Your task to perform on an android device: Open Yahoo.com Image 0: 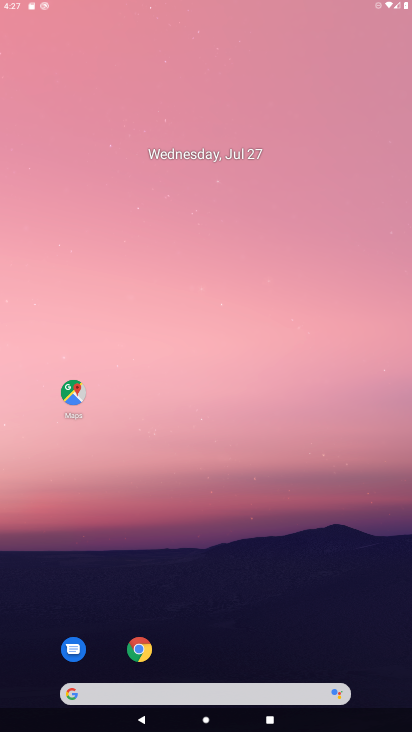
Step 0: click (133, 658)
Your task to perform on an android device: Open Yahoo.com Image 1: 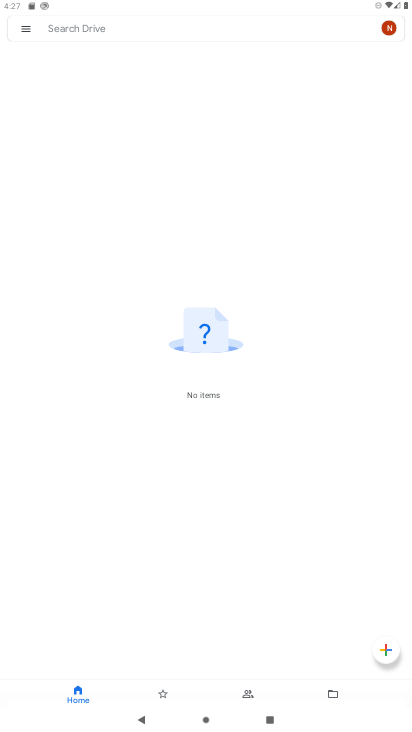
Step 1: press home button
Your task to perform on an android device: Open Yahoo.com Image 2: 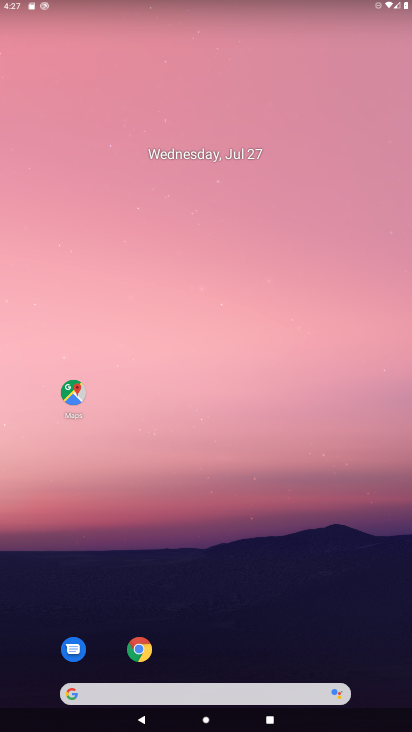
Step 2: click (140, 665)
Your task to perform on an android device: Open Yahoo.com Image 3: 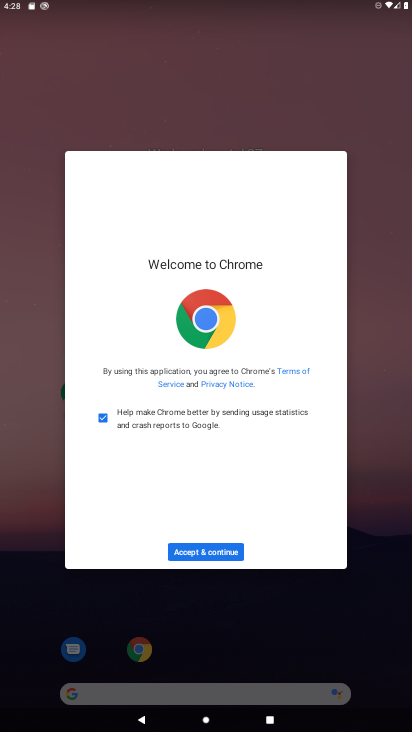
Step 3: click (235, 552)
Your task to perform on an android device: Open Yahoo.com Image 4: 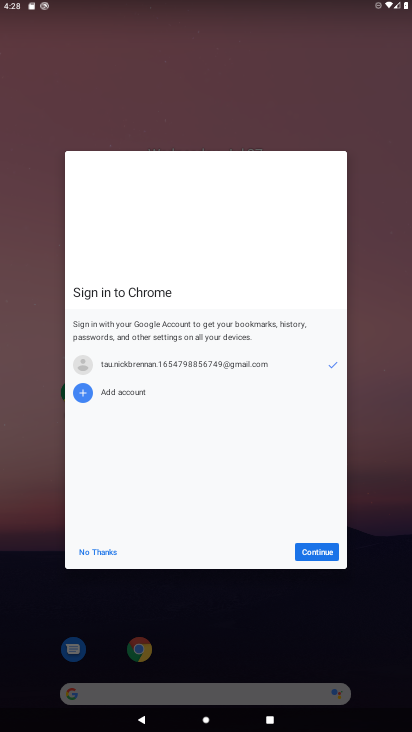
Step 4: click (317, 554)
Your task to perform on an android device: Open Yahoo.com Image 5: 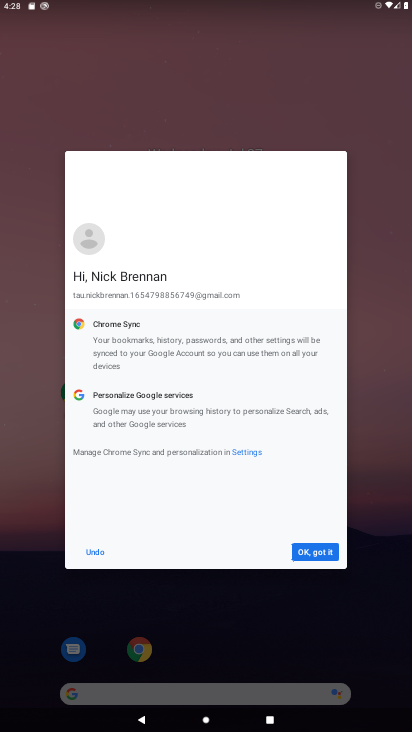
Step 5: click (317, 554)
Your task to perform on an android device: Open Yahoo.com Image 6: 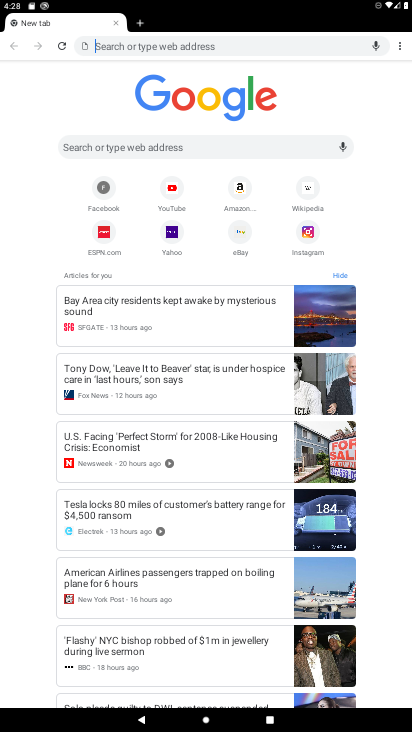
Step 6: click (177, 230)
Your task to perform on an android device: Open Yahoo.com Image 7: 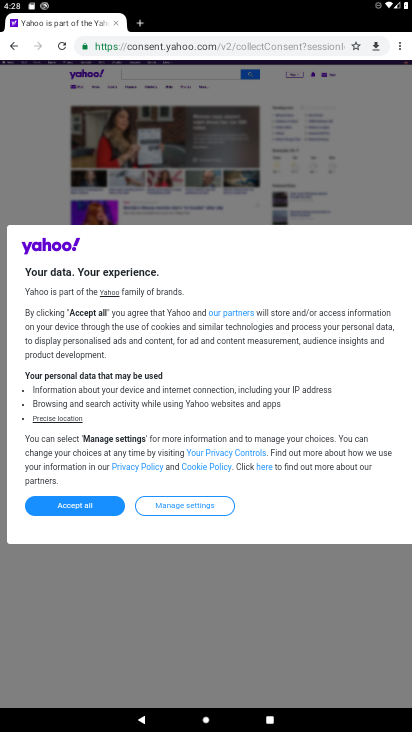
Step 7: click (80, 508)
Your task to perform on an android device: Open Yahoo.com Image 8: 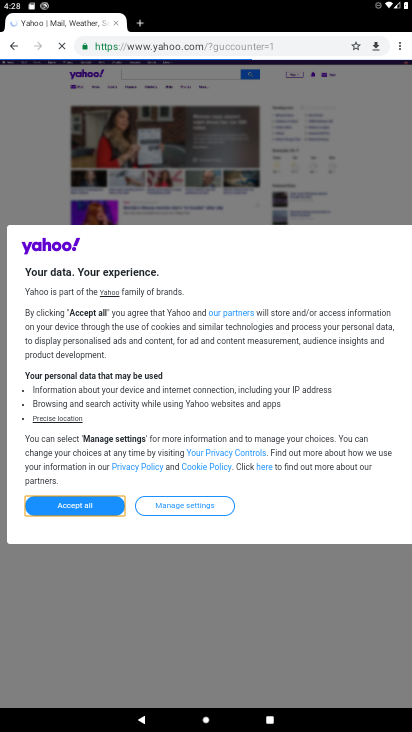
Step 8: task complete